Your task to perform on an android device: What's the news in Venezuela? Image 0: 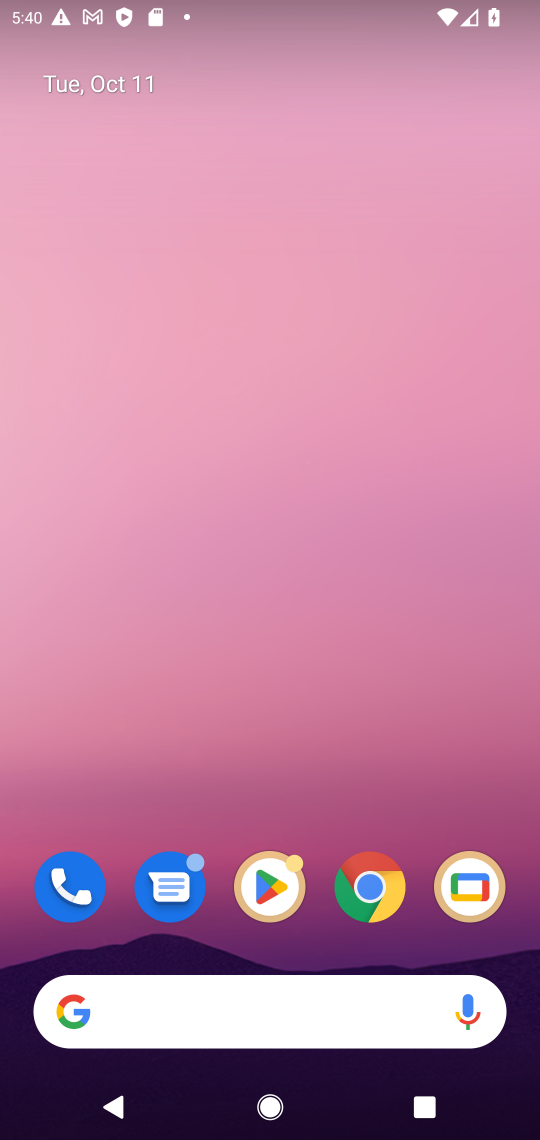
Step 0: click (279, 1009)
Your task to perform on an android device: What's the news in Venezuela? Image 1: 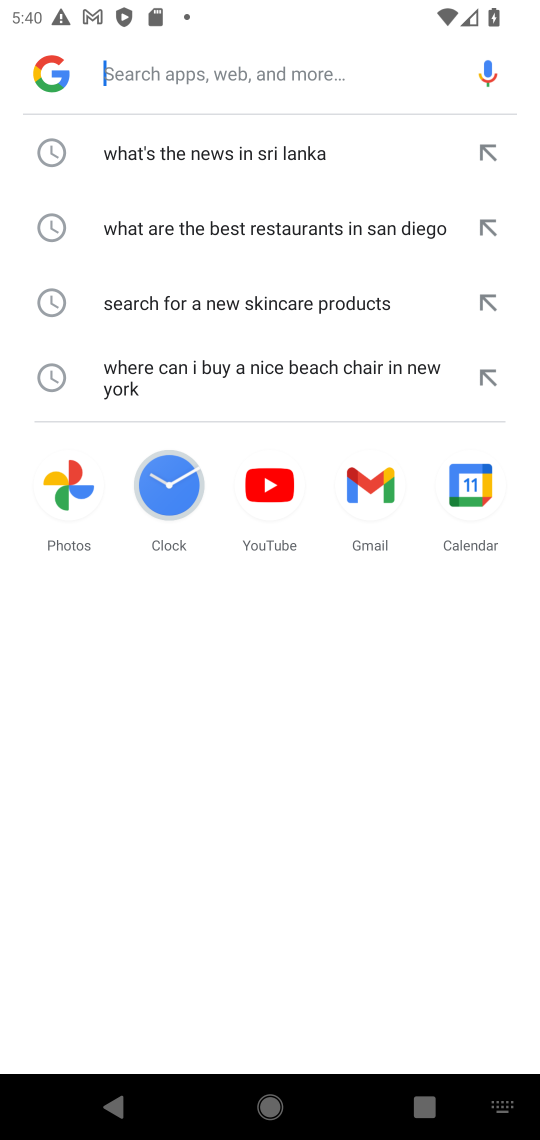
Step 1: type "What's the news in Venezuela?"
Your task to perform on an android device: What's the news in Venezuela? Image 2: 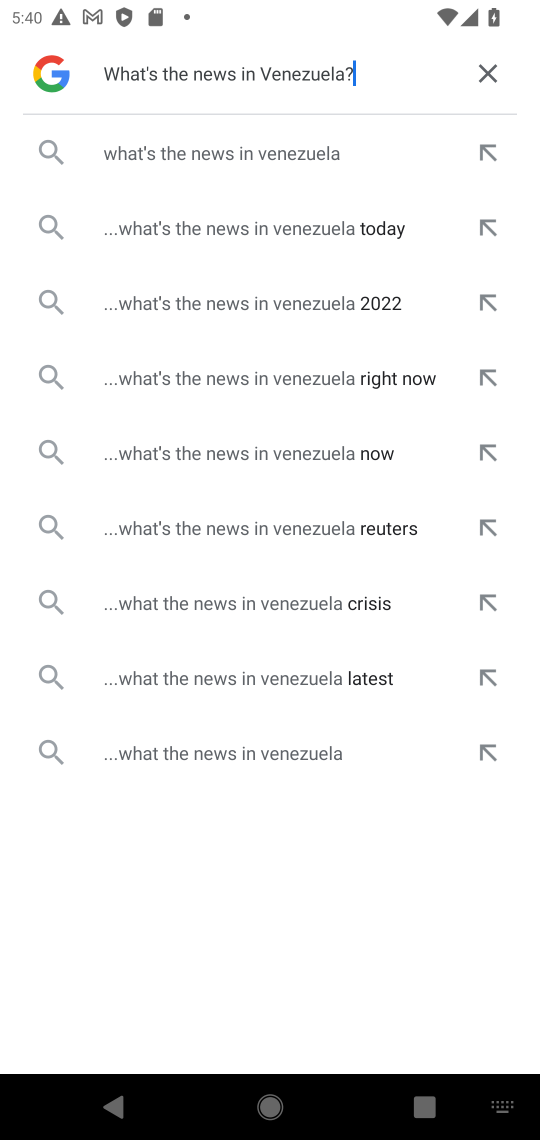
Step 2: click (297, 153)
Your task to perform on an android device: What's the news in Venezuela? Image 3: 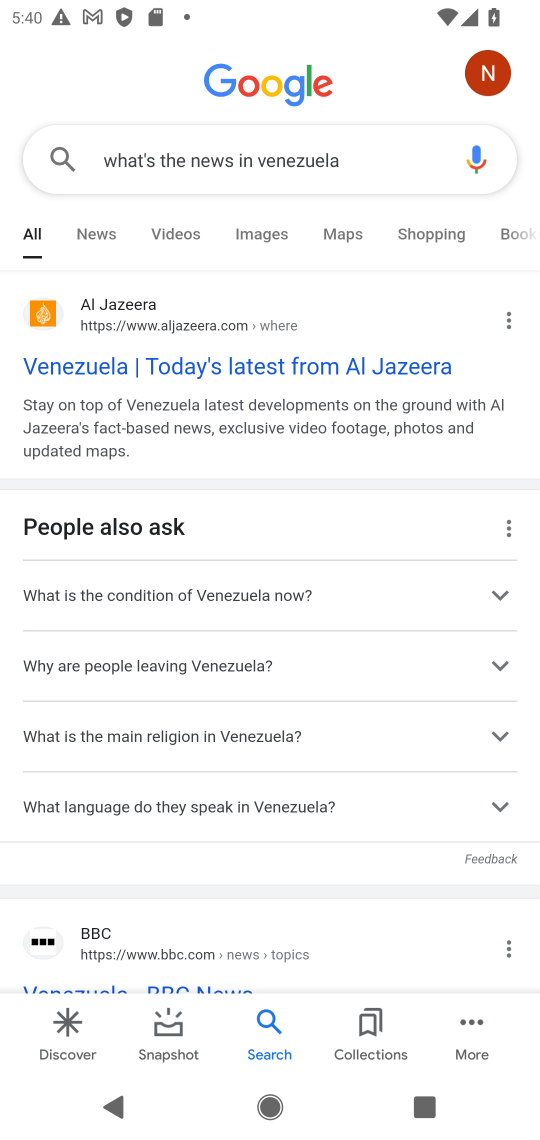
Step 3: click (90, 234)
Your task to perform on an android device: What's the news in Venezuela? Image 4: 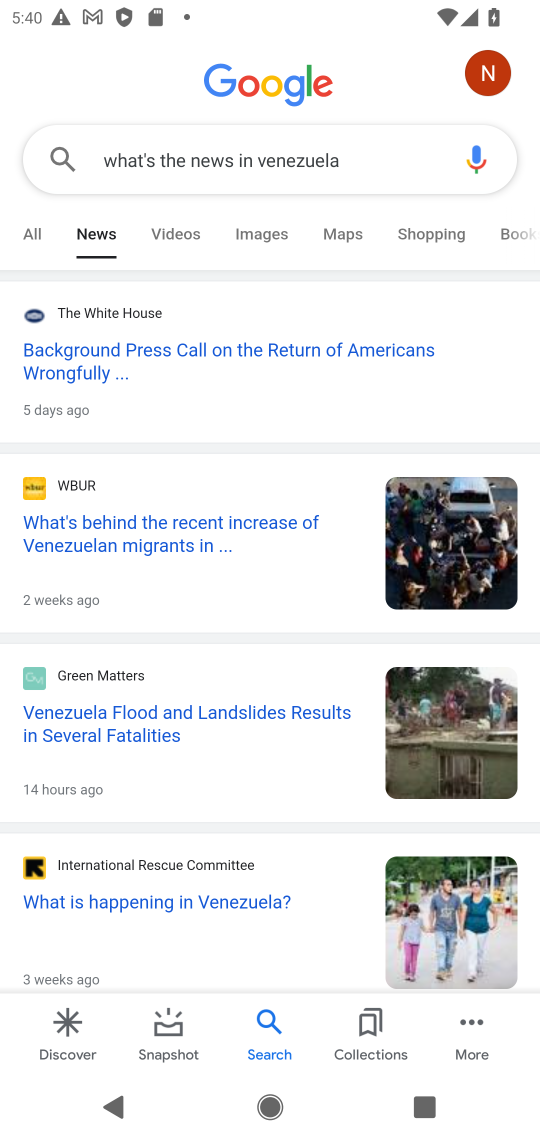
Step 4: task complete